Your task to perform on an android device: What is the news today? Image 0: 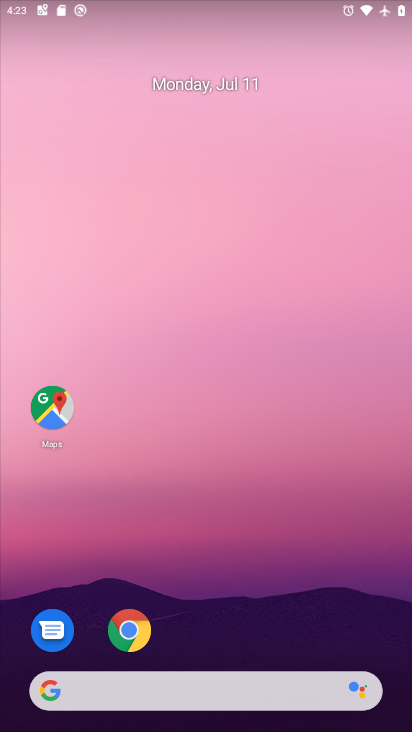
Step 0: drag from (238, 643) to (189, 169)
Your task to perform on an android device: What is the news today? Image 1: 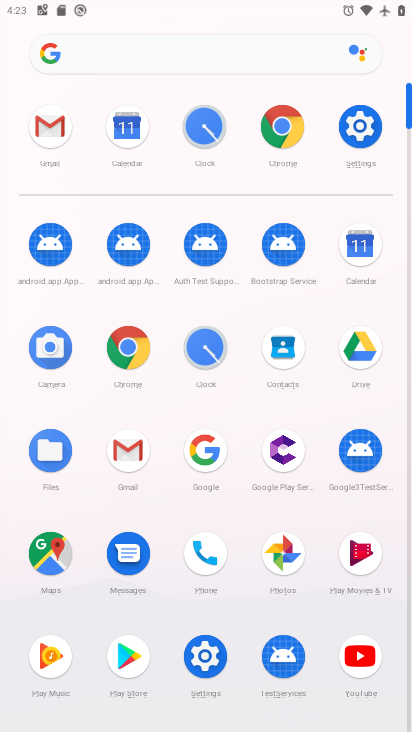
Step 1: click (178, 70)
Your task to perform on an android device: What is the news today? Image 2: 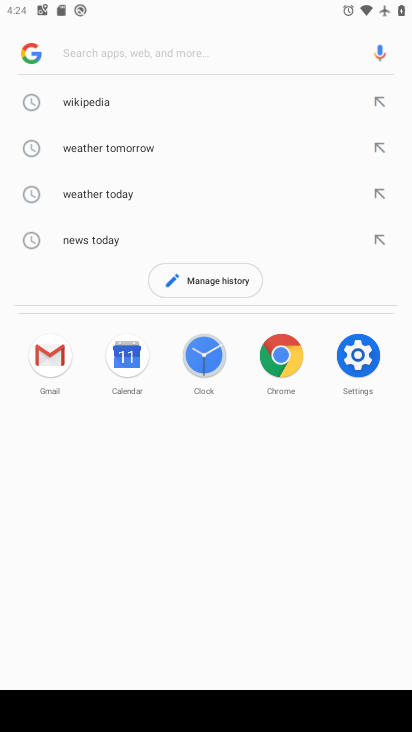
Step 2: click (113, 235)
Your task to perform on an android device: What is the news today? Image 3: 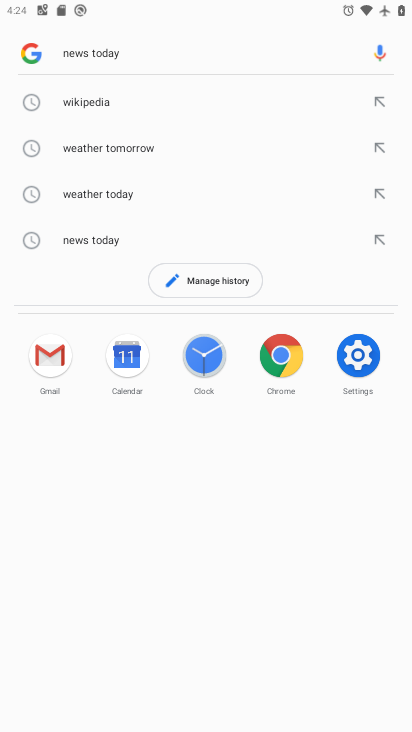
Step 3: task complete